Your task to perform on an android device: Go to privacy settings Image 0: 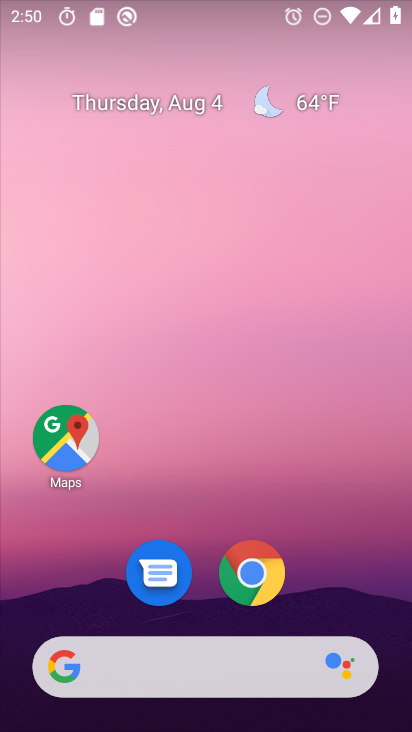
Step 0: drag from (341, 526) to (302, 71)
Your task to perform on an android device: Go to privacy settings Image 1: 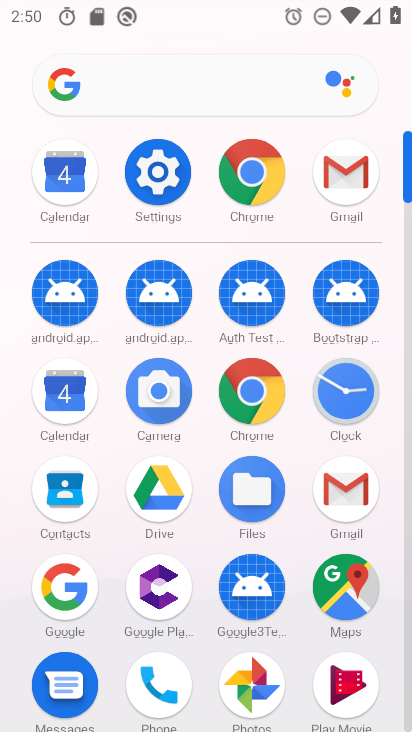
Step 1: click (167, 168)
Your task to perform on an android device: Go to privacy settings Image 2: 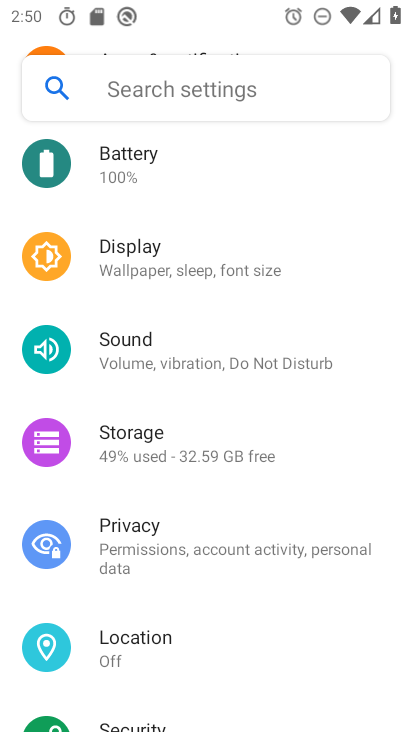
Step 2: click (201, 539)
Your task to perform on an android device: Go to privacy settings Image 3: 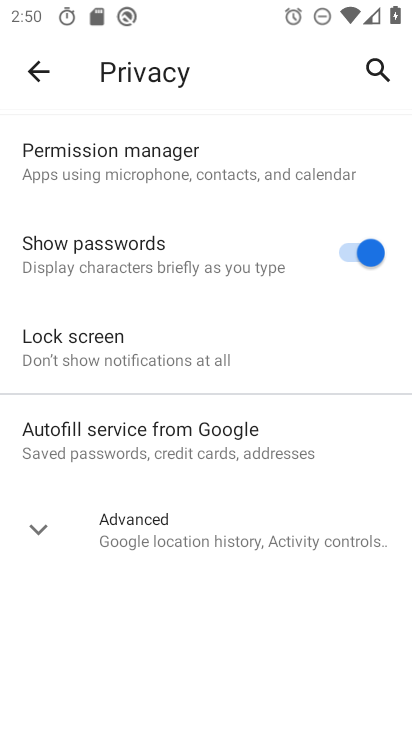
Step 3: task complete